Your task to perform on an android device: set the stopwatch Image 0: 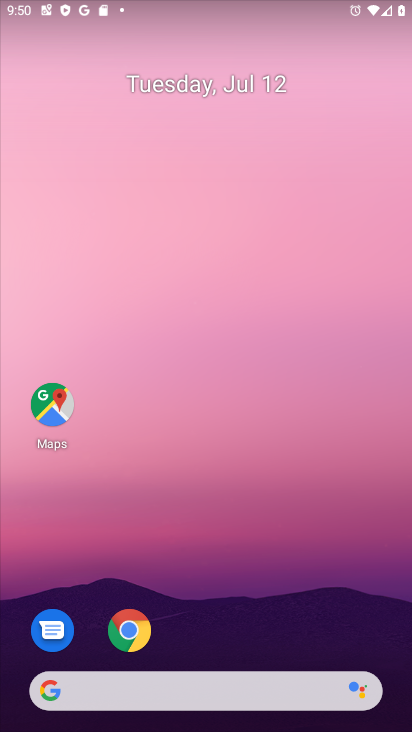
Step 0: drag from (225, 630) to (261, 148)
Your task to perform on an android device: set the stopwatch Image 1: 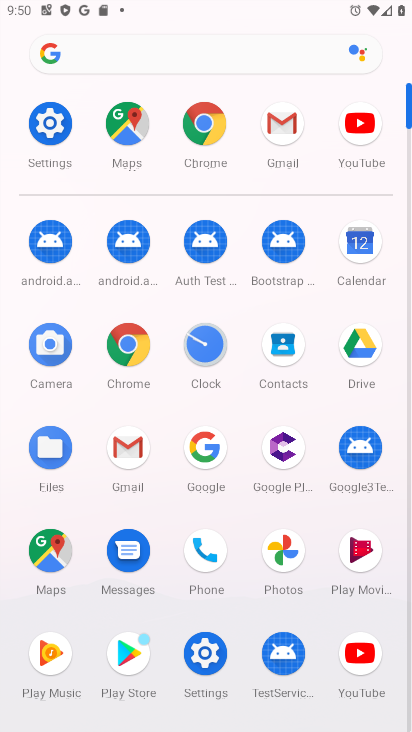
Step 1: click (202, 347)
Your task to perform on an android device: set the stopwatch Image 2: 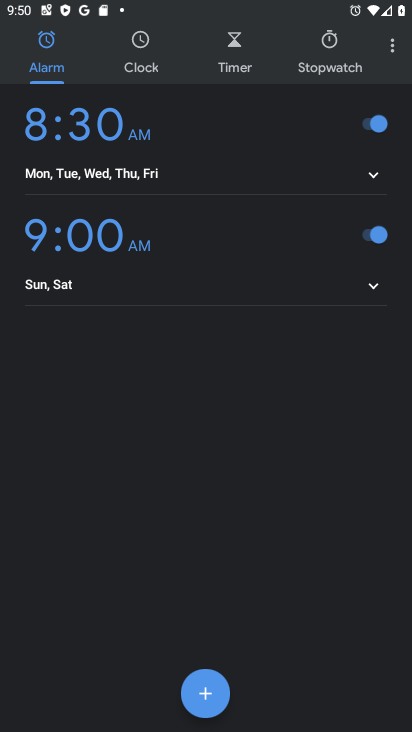
Step 2: click (320, 46)
Your task to perform on an android device: set the stopwatch Image 3: 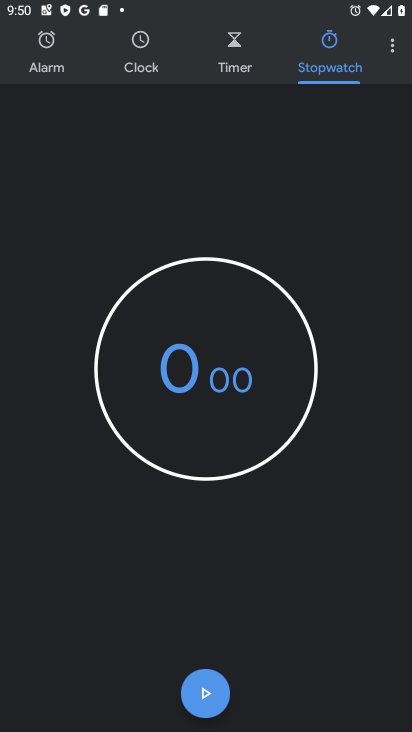
Step 3: click (209, 694)
Your task to perform on an android device: set the stopwatch Image 4: 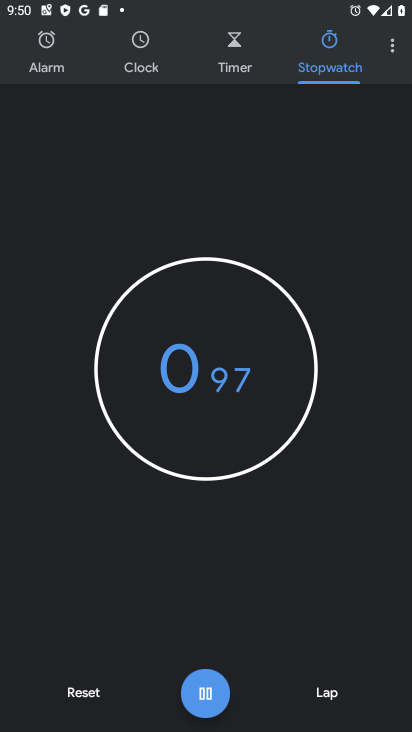
Step 4: click (213, 697)
Your task to perform on an android device: set the stopwatch Image 5: 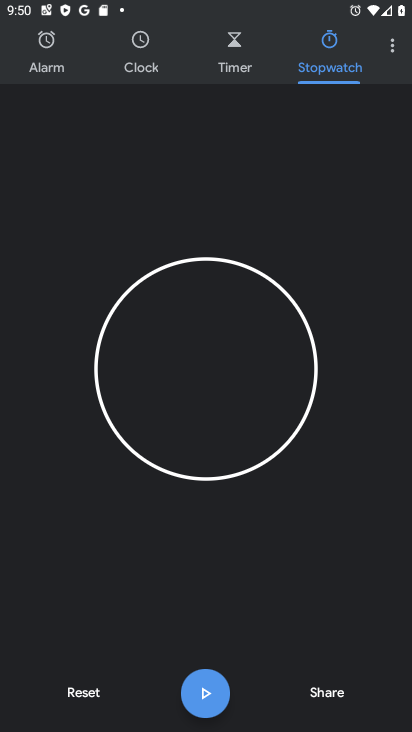
Step 5: task complete